Your task to perform on an android device: Open the map Image 0: 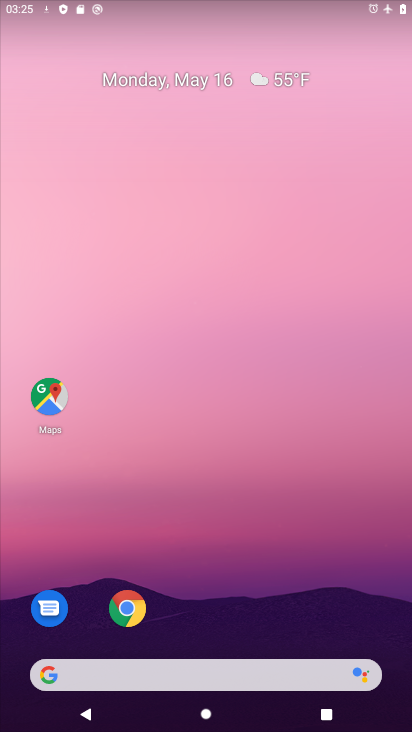
Step 0: click (58, 386)
Your task to perform on an android device: Open the map Image 1: 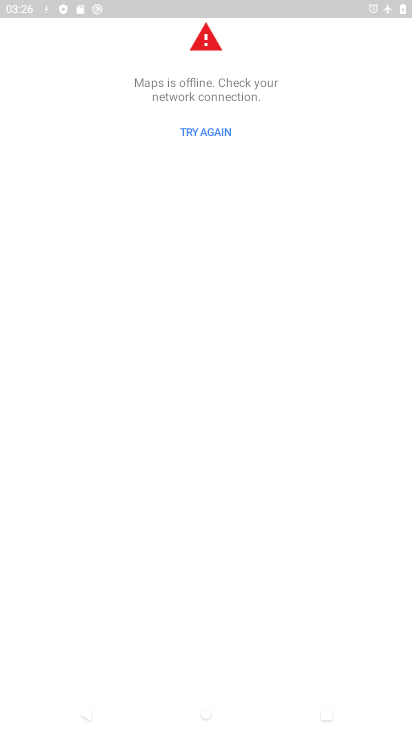
Step 1: task complete